Your task to perform on an android device: change the clock style Image 0: 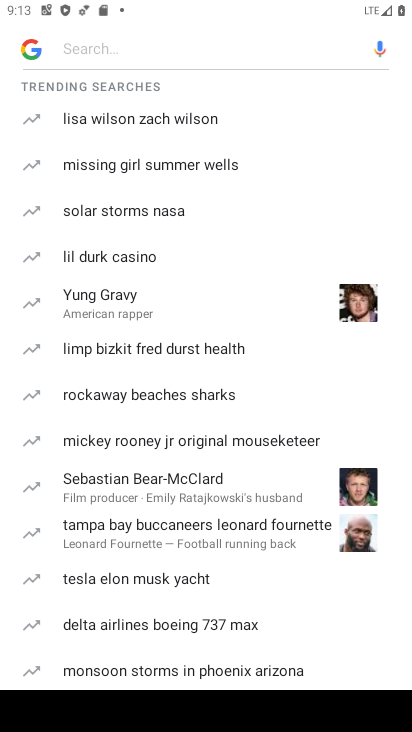
Step 0: press home button
Your task to perform on an android device: change the clock style Image 1: 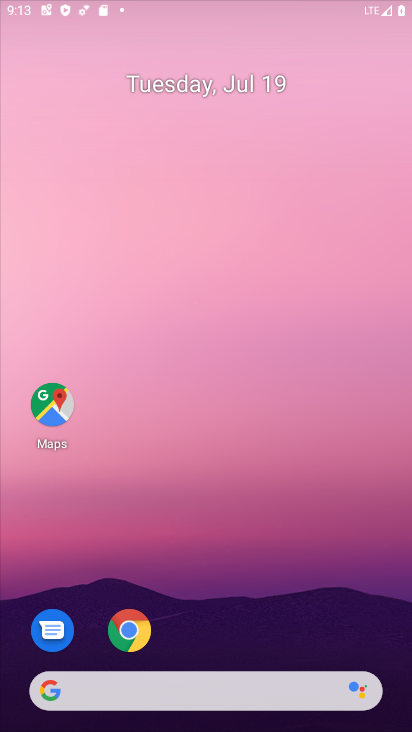
Step 1: drag from (210, 630) to (232, 117)
Your task to perform on an android device: change the clock style Image 2: 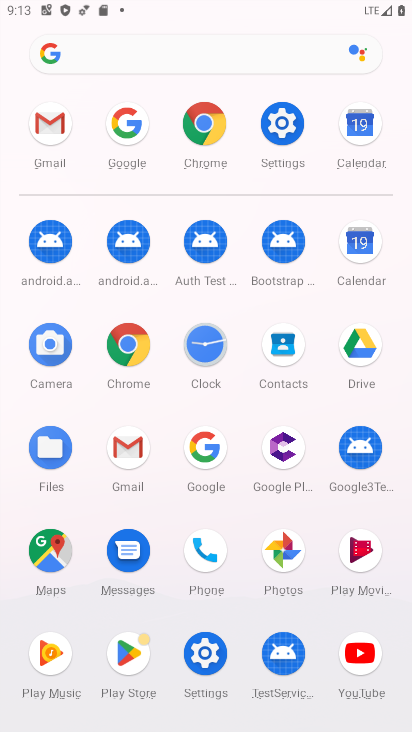
Step 2: click (204, 344)
Your task to perform on an android device: change the clock style Image 3: 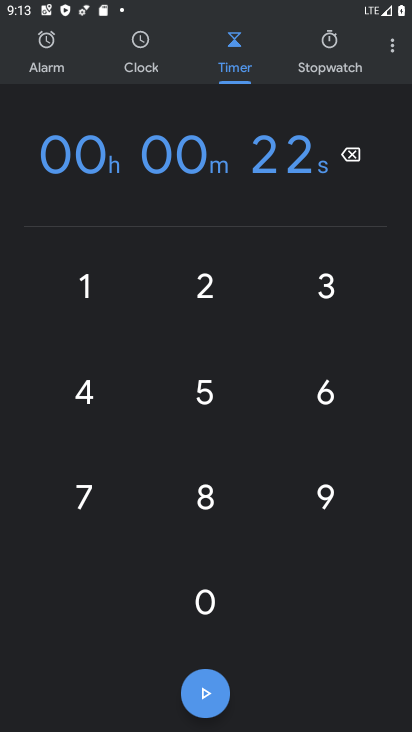
Step 3: click (389, 46)
Your task to perform on an android device: change the clock style Image 4: 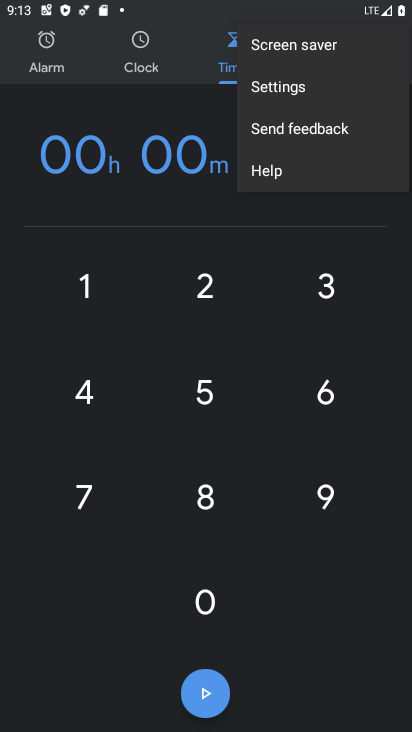
Step 4: click (299, 94)
Your task to perform on an android device: change the clock style Image 5: 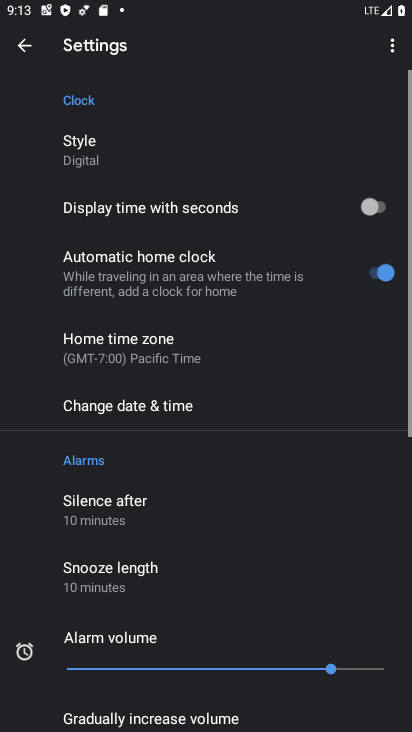
Step 5: click (103, 147)
Your task to perform on an android device: change the clock style Image 6: 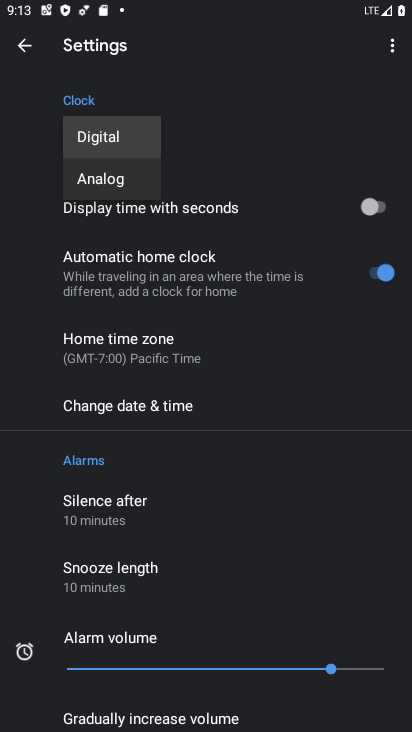
Step 6: click (105, 175)
Your task to perform on an android device: change the clock style Image 7: 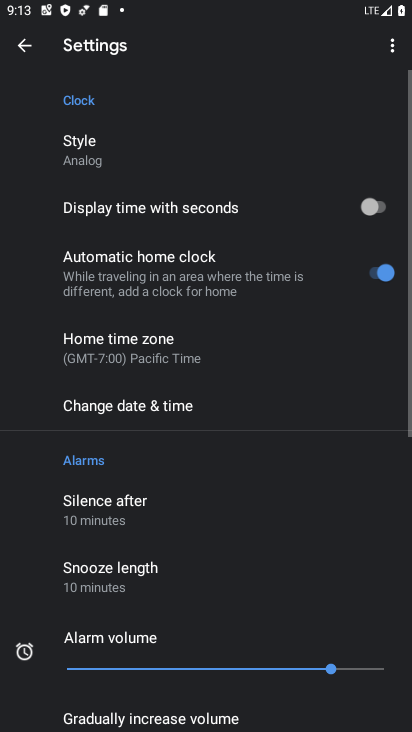
Step 7: task complete